Your task to perform on an android device: turn on location history Image 0: 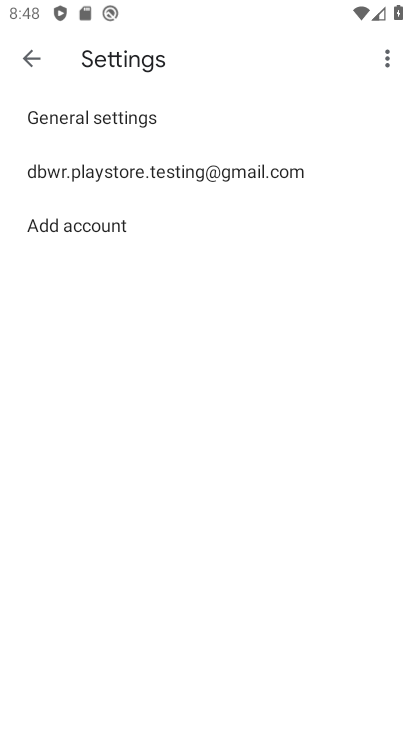
Step 0: press home button
Your task to perform on an android device: turn on location history Image 1: 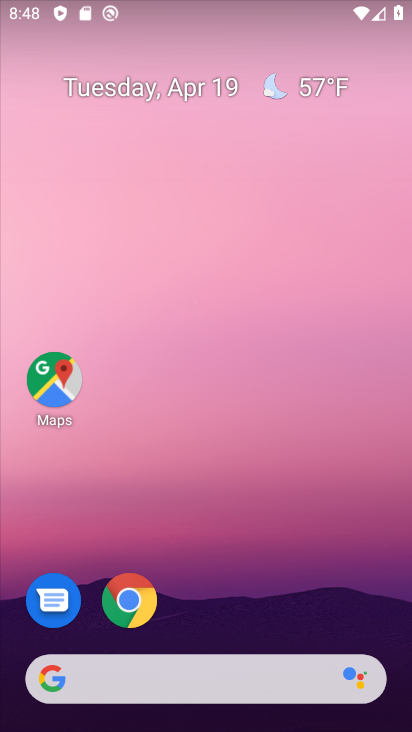
Step 1: drag from (349, 463) to (338, 75)
Your task to perform on an android device: turn on location history Image 2: 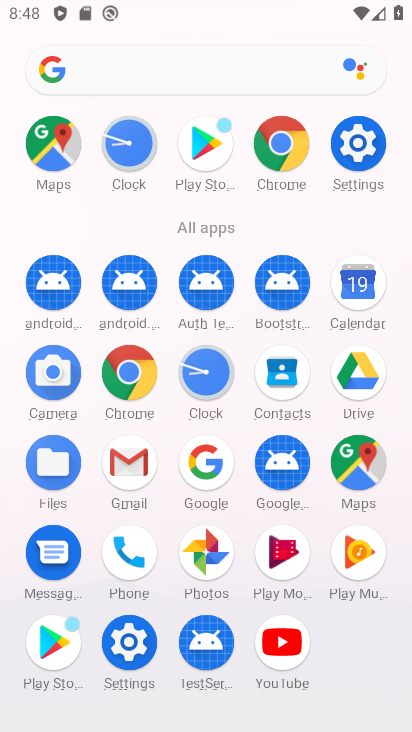
Step 2: click (368, 141)
Your task to perform on an android device: turn on location history Image 3: 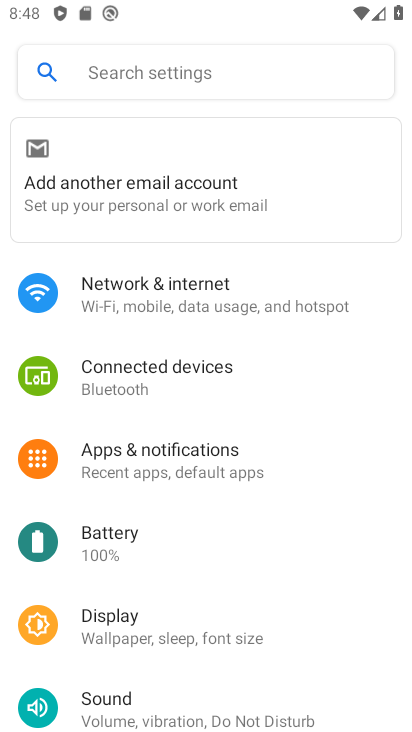
Step 3: drag from (367, 600) to (379, 318)
Your task to perform on an android device: turn on location history Image 4: 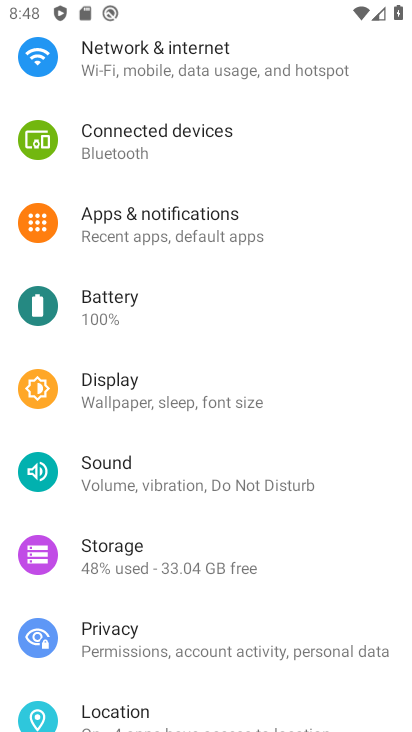
Step 4: drag from (367, 568) to (365, 323)
Your task to perform on an android device: turn on location history Image 5: 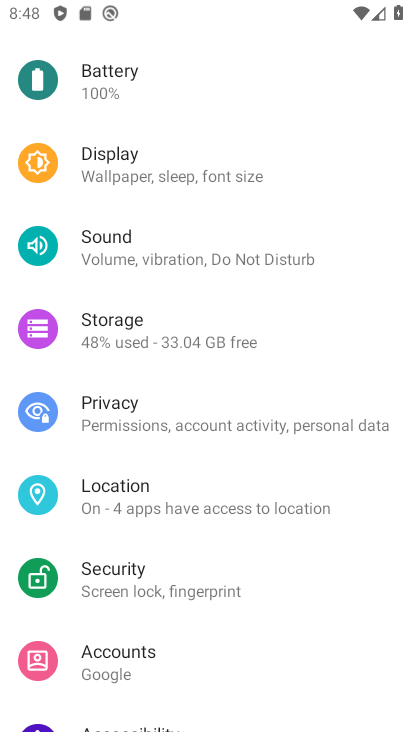
Step 5: drag from (380, 623) to (392, 309)
Your task to perform on an android device: turn on location history Image 6: 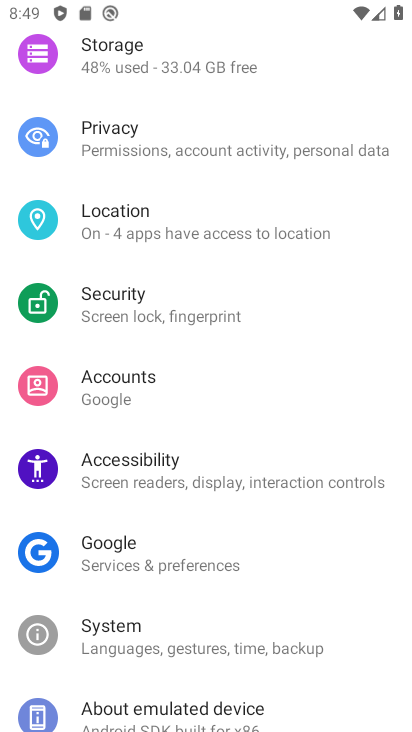
Step 6: click (182, 220)
Your task to perform on an android device: turn on location history Image 7: 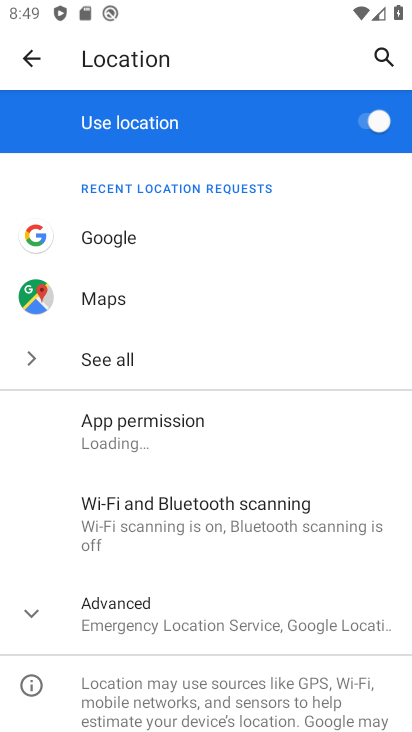
Step 7: click (263, 628)
Your task to perform on an android device: turn on location history Image 8: 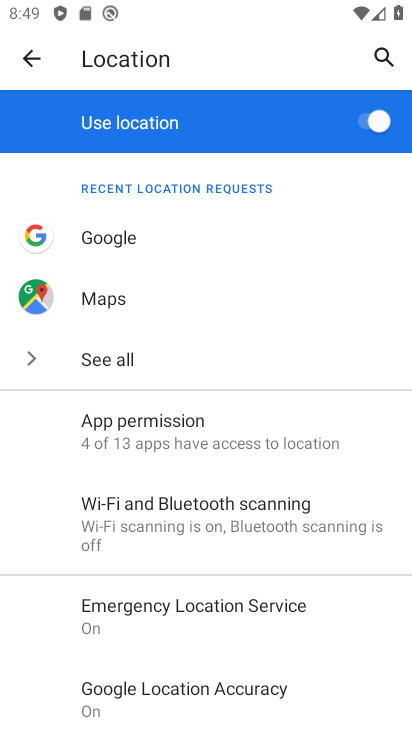
Step 8: task complete